Your task to perform on an android device: View the shopping cart on newegg.com. Search for duracell triple a on newegg.com, select the first entry, add it to the cart, then select checkout. Image 0: 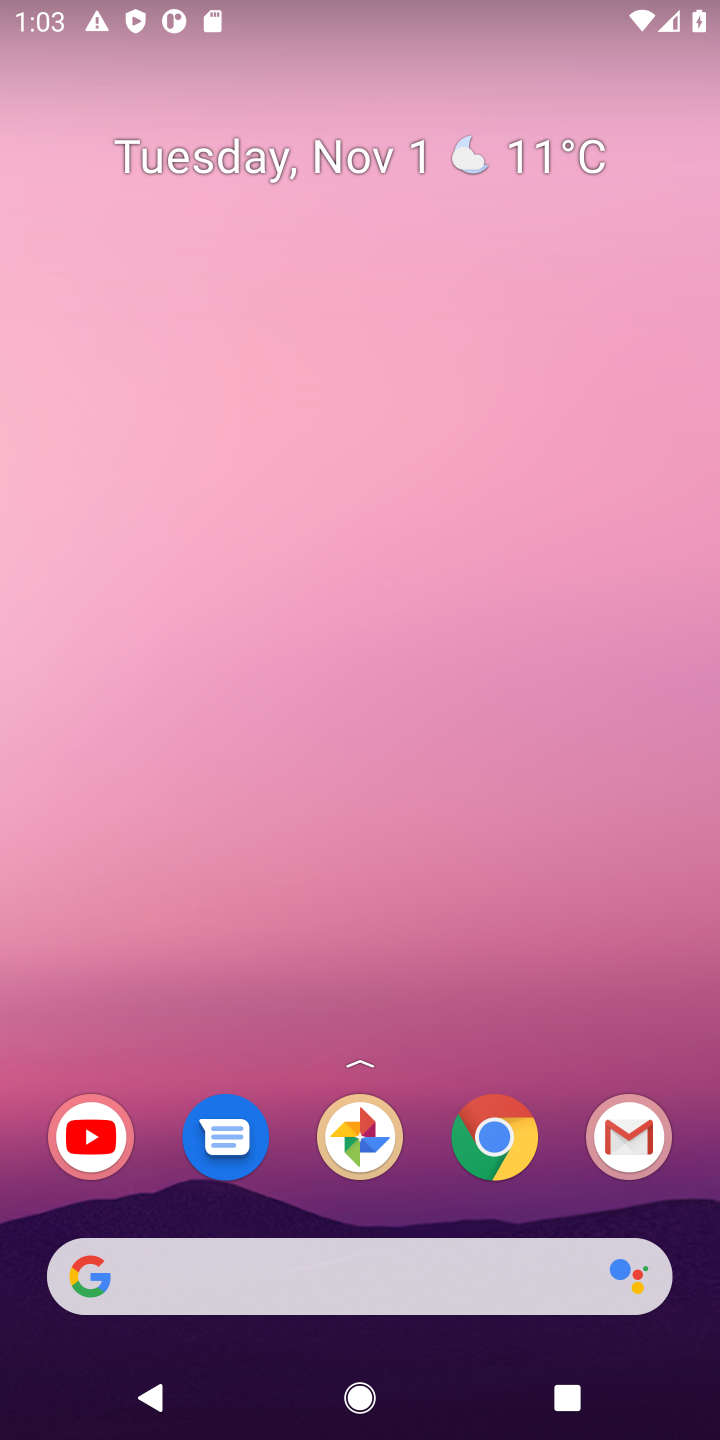
Step 0: click (473, 1143)
Your task to perform on an android device: View the shopping cart on newegg.com. Search for duracell triple a on newegg.com, select the first entry, add it to the cart, then select checkout. Image 1: 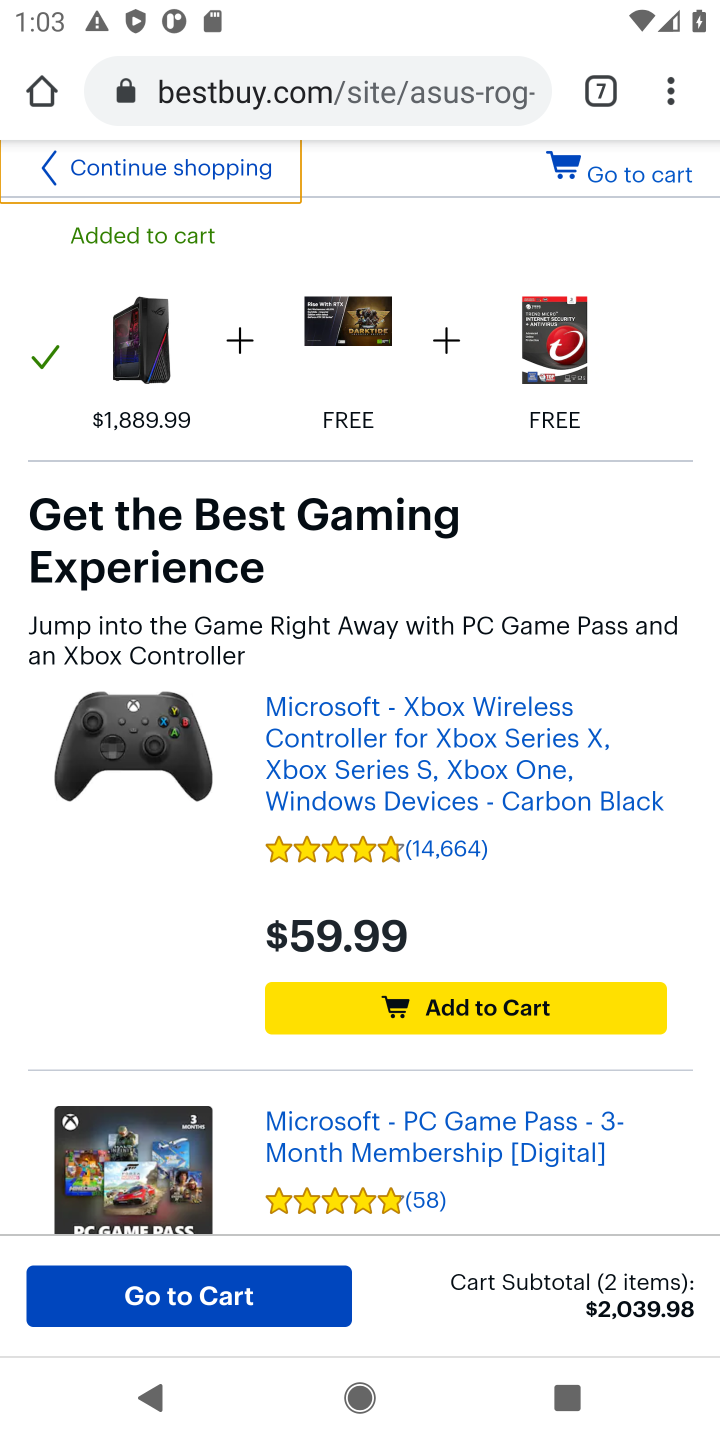
Step 1: click (597, 88)
Your task to perform on an android device: View the shopping cart on newegg.com. Search for duracell triple a on newegg.com, select the first entry, add it to the cart, then select checkout. Image 2: 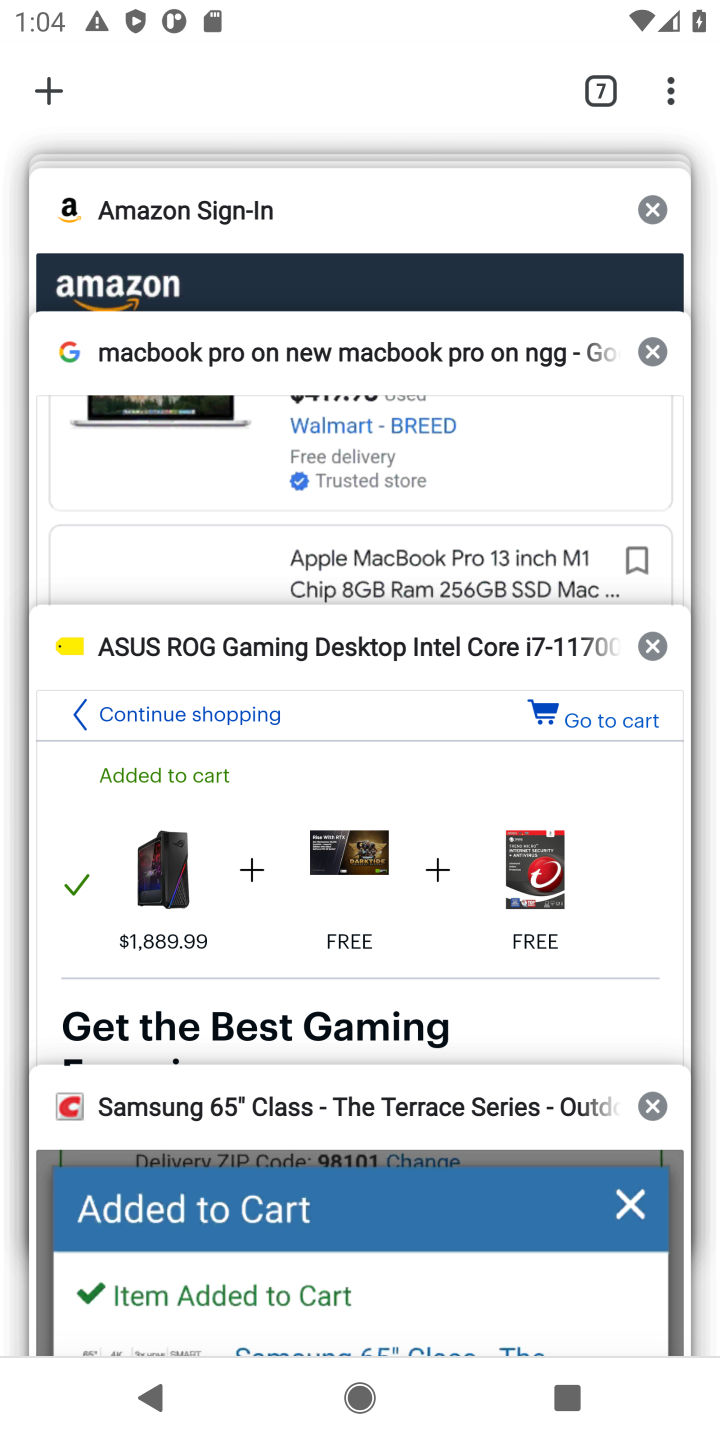
Step 2: click (428, 397)
Your task to perform on an android device: View the shopping cart on newegg.com. Search for duracell triple a on newegg.com, select the first entry, add it to the cart, then select checkout. Image 3: 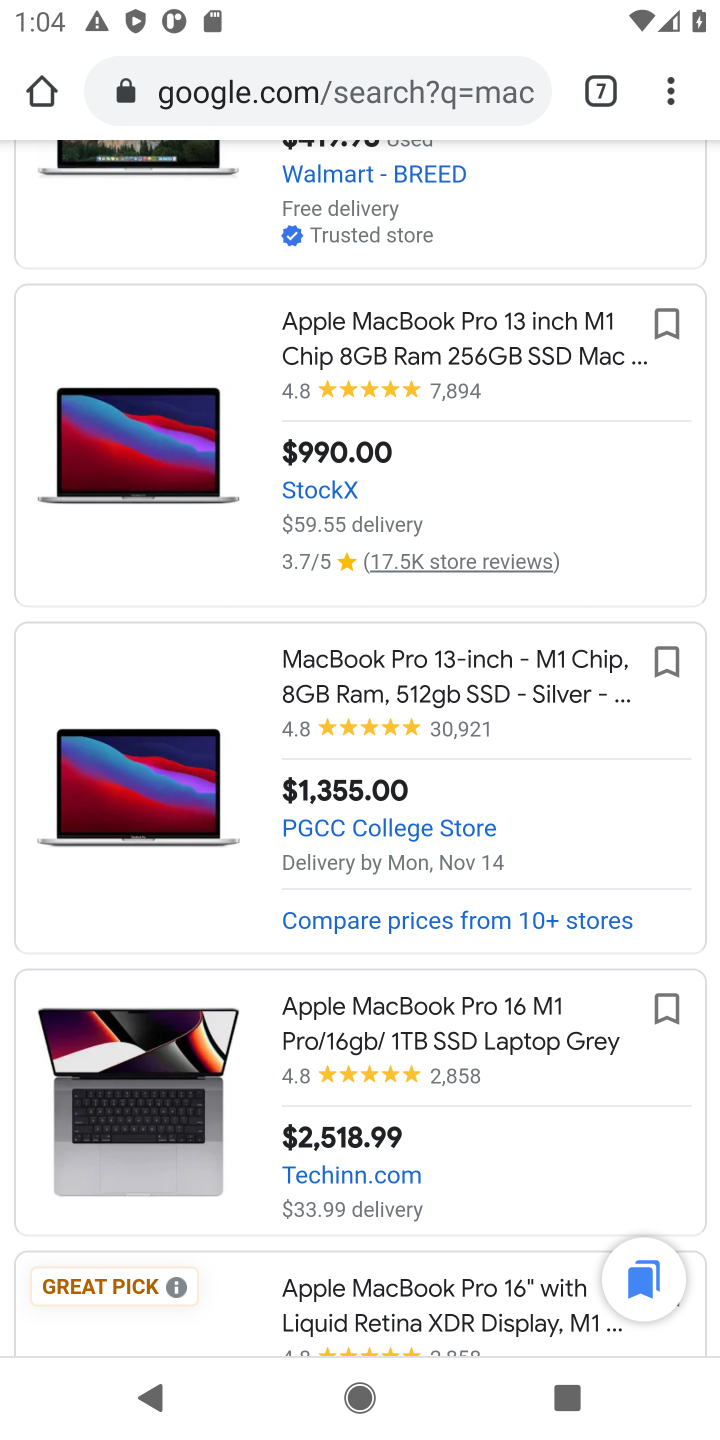
Step 3: click (431, 91)
Your task to perform on an android device: View the shopping cart on newegg.com. Search for duracell triple a on newegg.com, select the first entry, add it to the cart, then select checkout. Image 4: 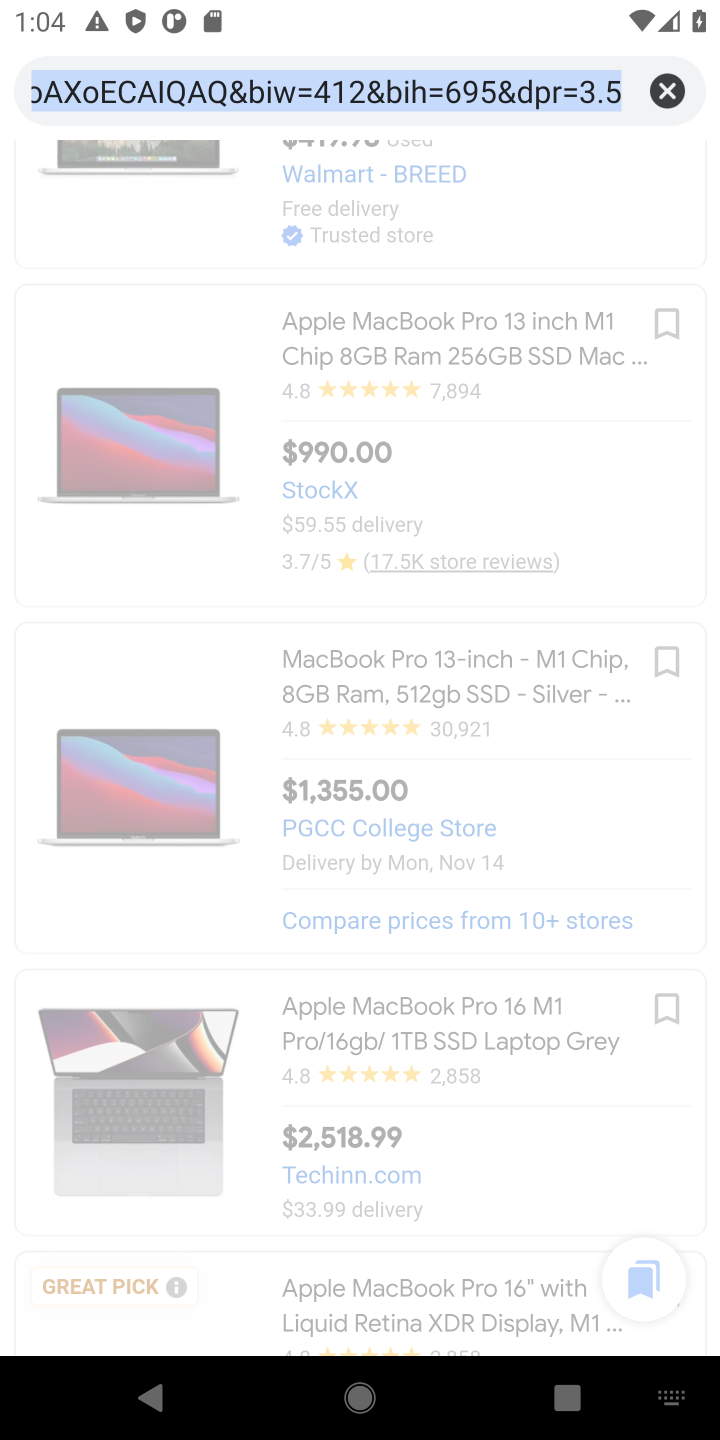
Step 4: type "duracell triple a battery newegg"
Your task to perform on an android device: View the shopping cart on newegg.com. Search for duracell triple a on newegg.com, select the first entry, add it to the cart, then select checkout. Image 5: 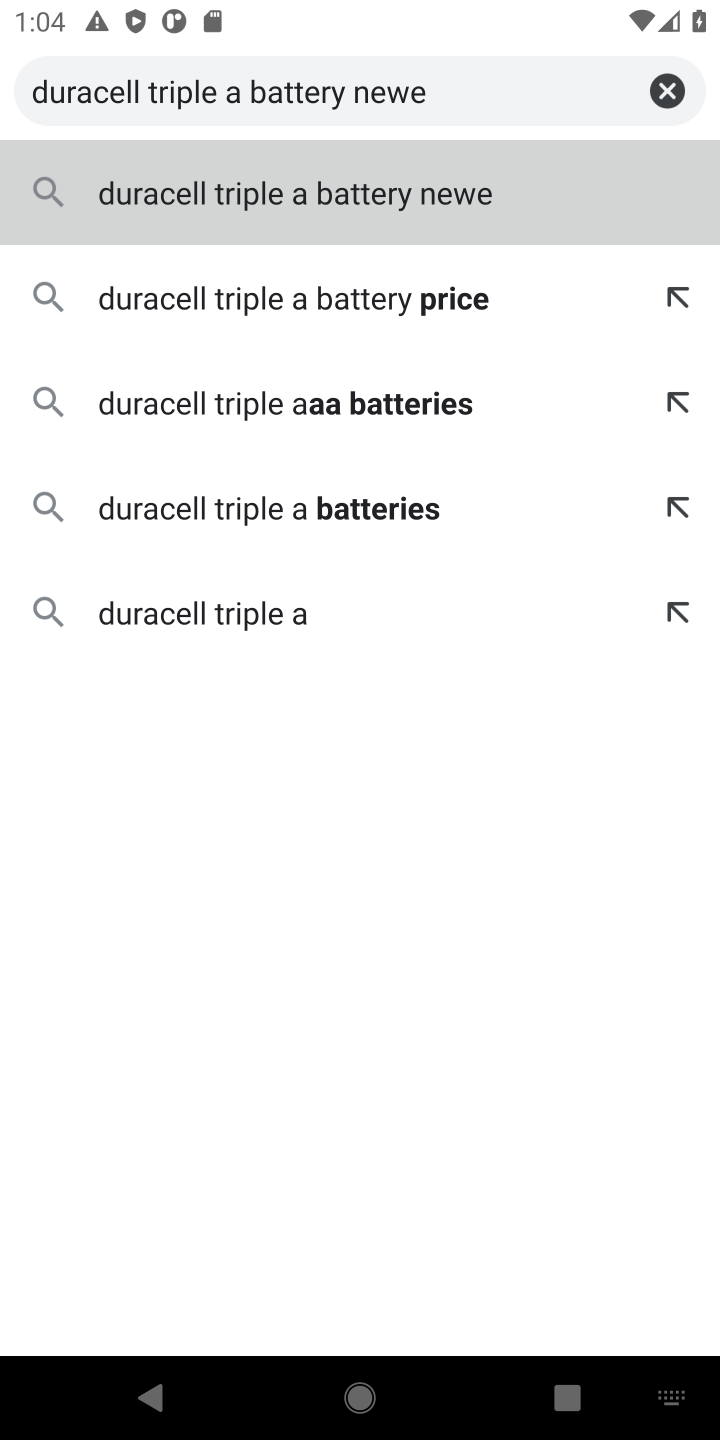
Step 5: click (399, 207)
Your task to perform on an android device: View the shopping cart on newegg.com. Search for duracell triple a on newegg.com, select the first entry, add it to the cart, then select checkout. Image 6: 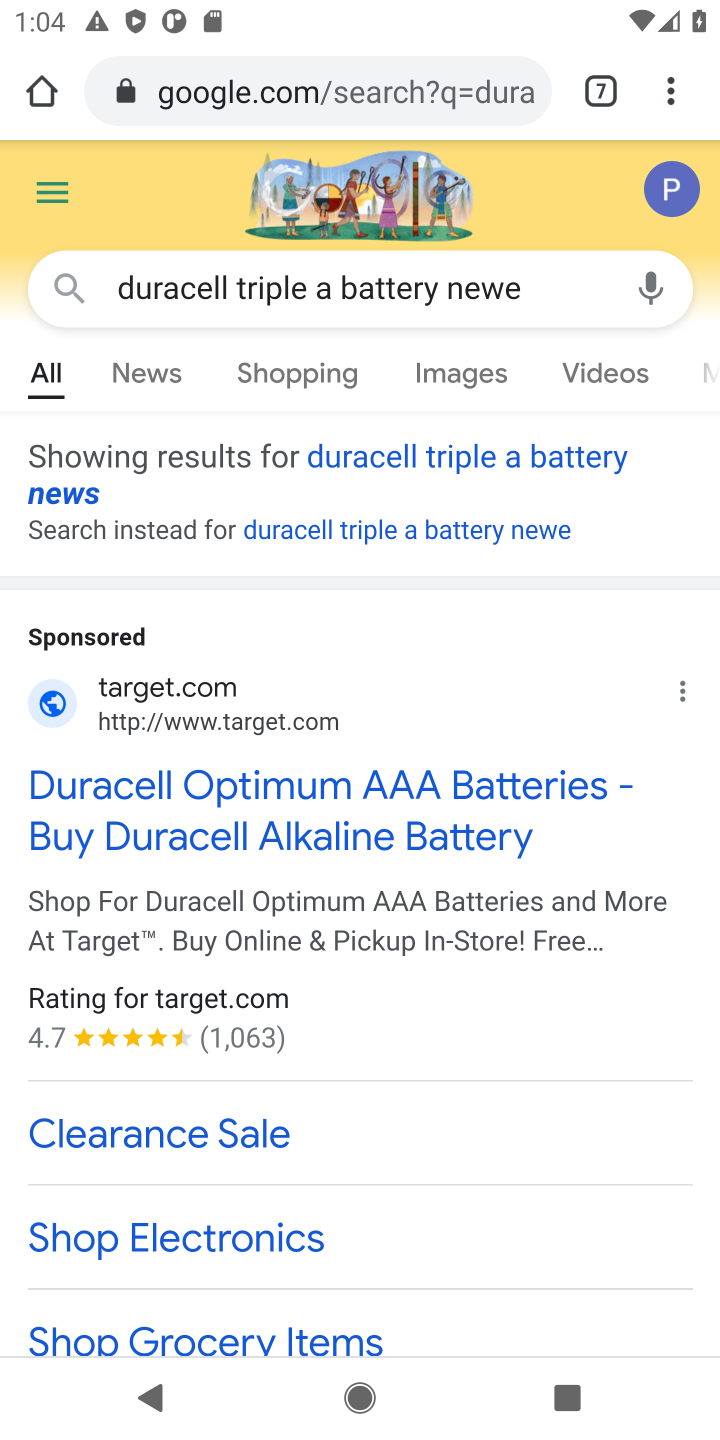
Step 6: click (302, 368)
Your task to perform on an android device: View the shopping cart on newegg.com. Search for duracell triple a on newegg.com, select the first entry, add it to the cart, then select checkout. Image 7: 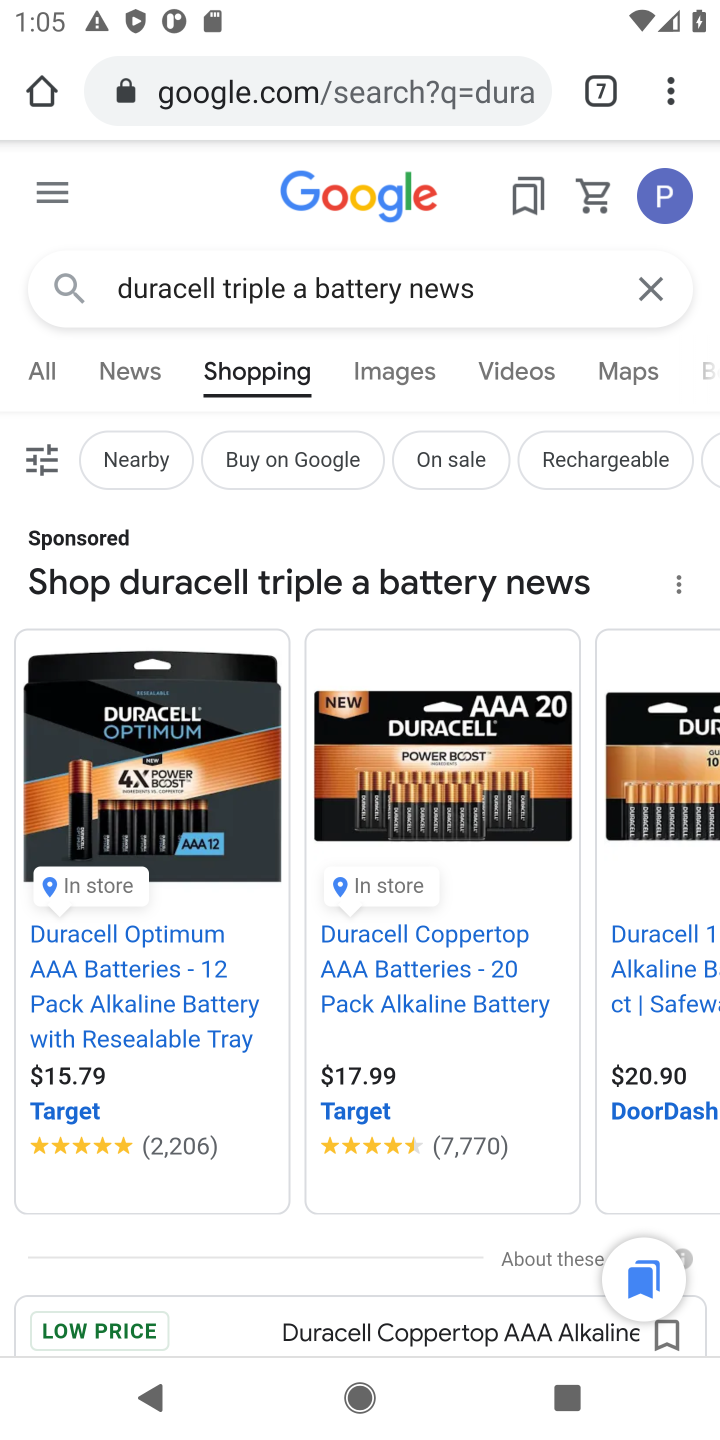
Step 7: drag from (565, 995) to (207, 1050)
Your task to perform on an android device: View the shopping cart on newegg.com. Search for duracell triple a on newegg.com, select the first entry, add it to the cart, then select checkout. Image 8: 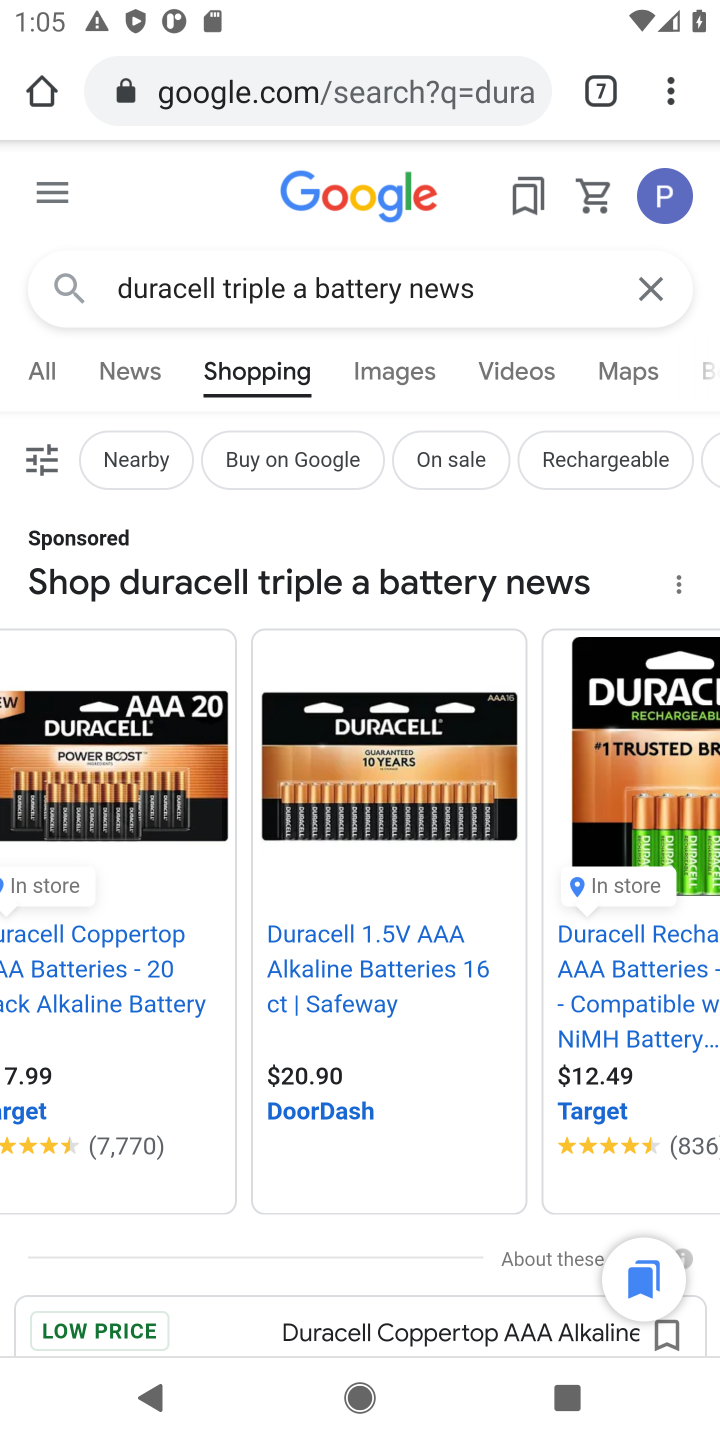
Step 8: click (632, 981)
Your task to perform on an android device: View the shopping cart on newegg.com. Search for duracell triple a on newegg.com, select the first entry, add it to the cart, then select checkout. Image 9: 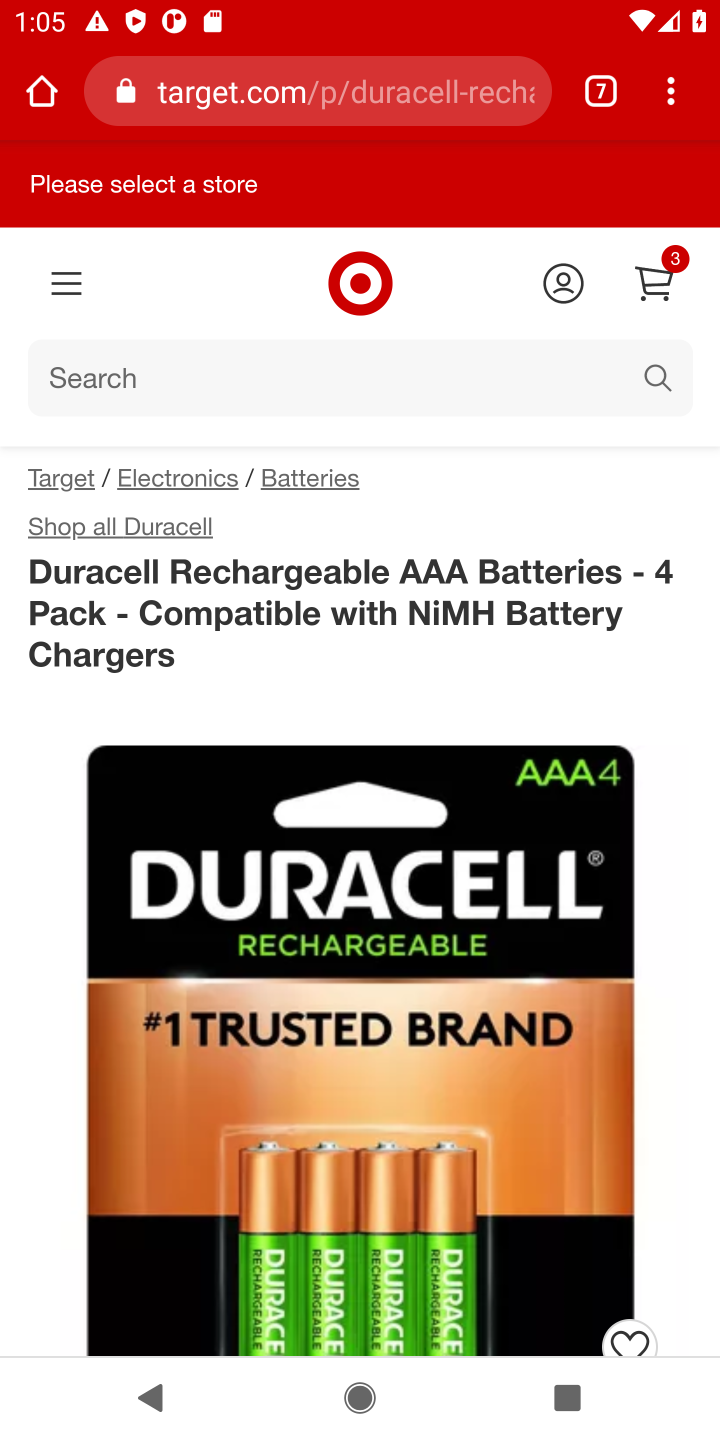
Step 9: drag from (489, 557) to (494, 87)
Your task to perform on an android device: View the shopping cart on newegg.com. Search for duracell triple a on newegg.com, select the first entry, add it to the cart, then select checkout. Image 10: 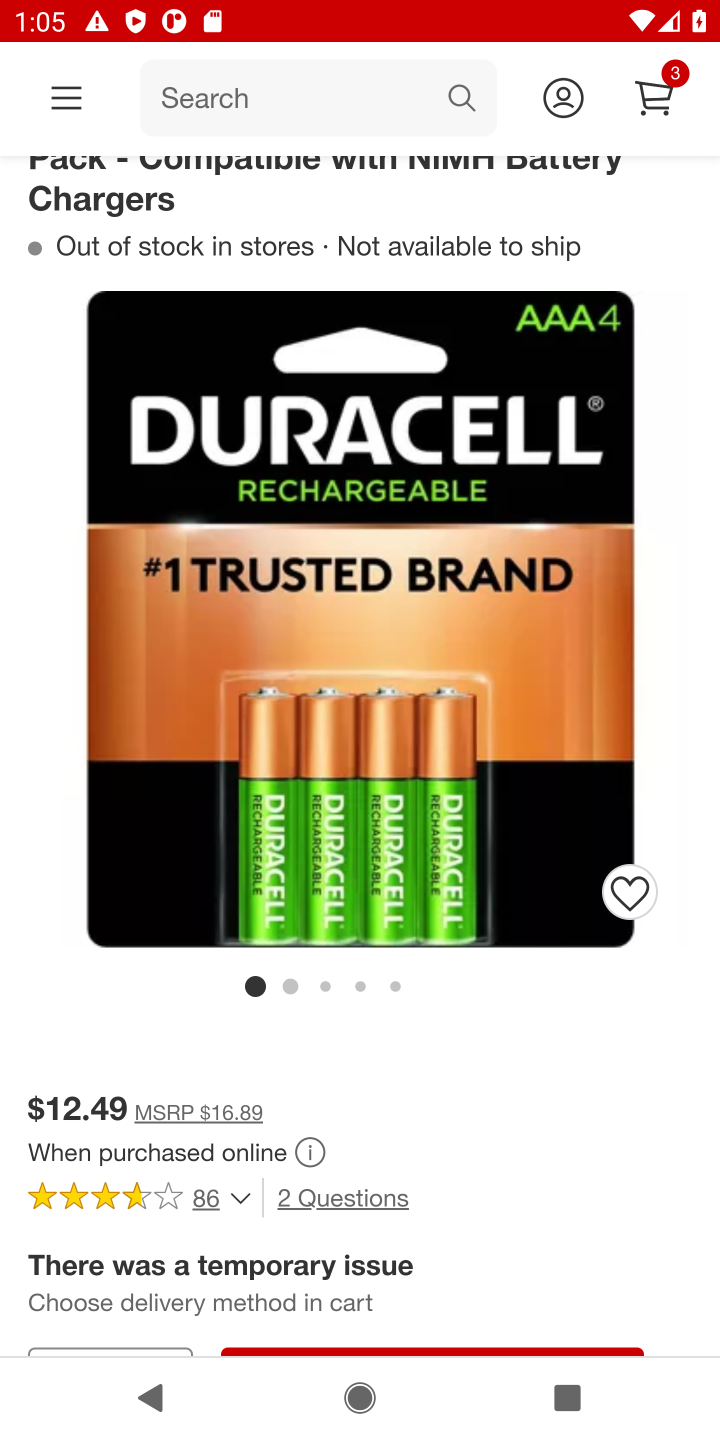
Step 10: drag from (510, 498) to (550, 397)
Your task to perform on an android device: View the shopping cart on newegg.com. Search for duracell triple a on newegg.com, select the first entry, add it to the cart, then select checkout. Image 11: 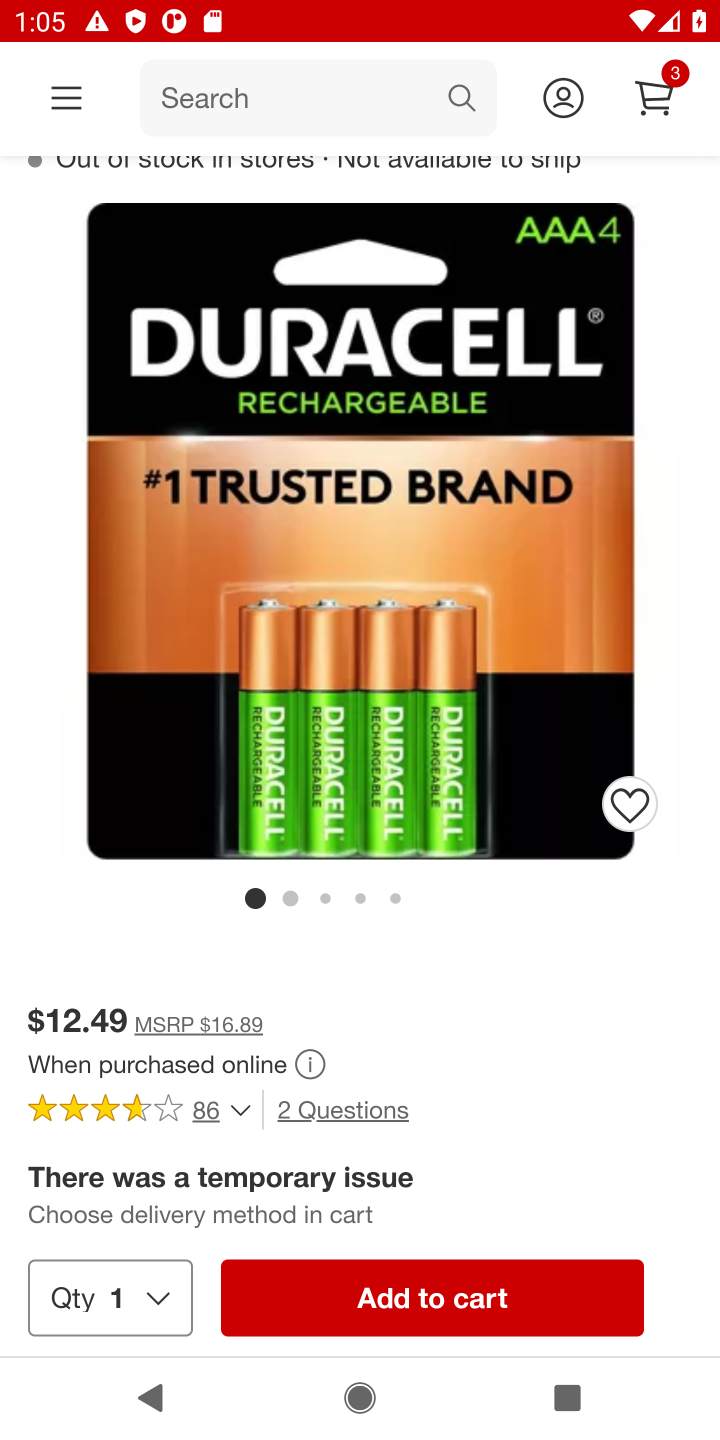
Step 11: click (328, 1286)
Your task to perform on an android device: View the shopping cart on newegg.com. Search for duracell triple a on newegg.com, select the first entry, add it to the cart, then select checkout. Image 12: 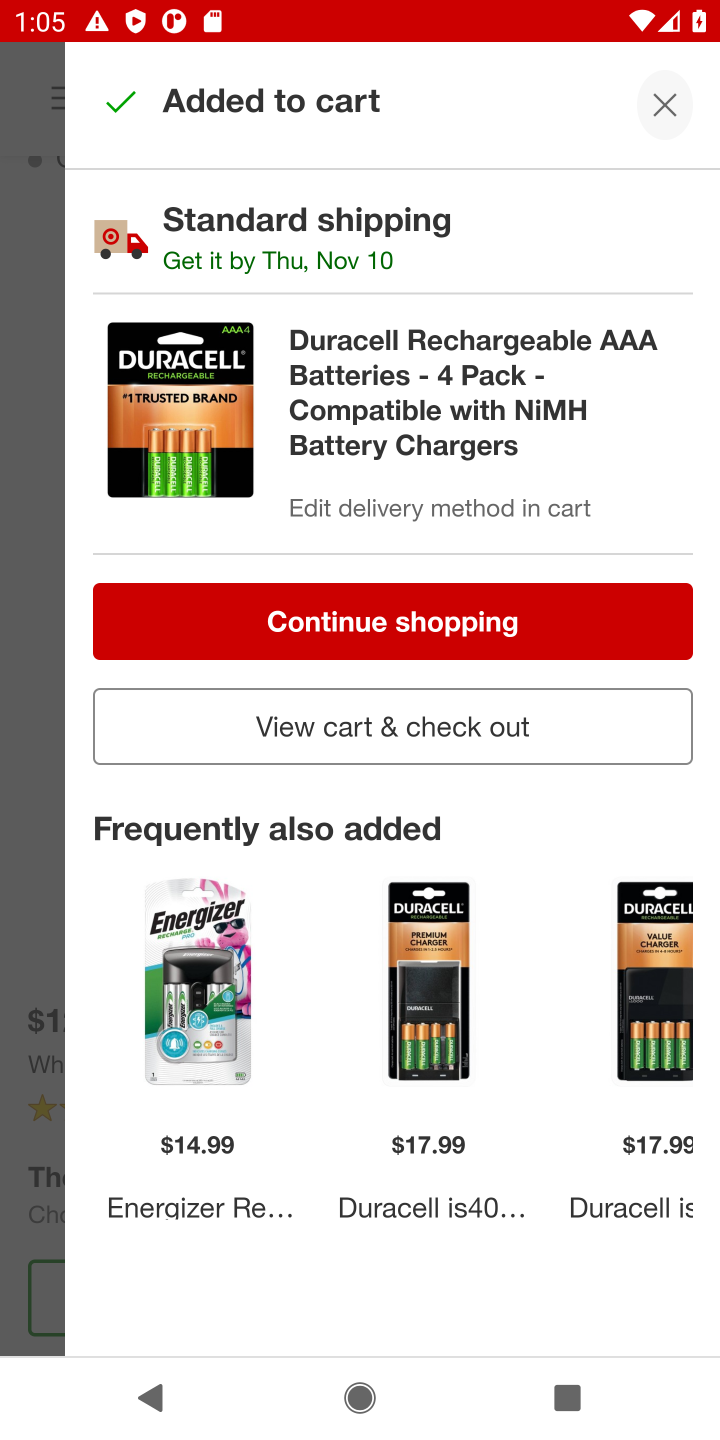
Step 12: task complete